Your task to perform on an android device: Open Google Maps Image 0: 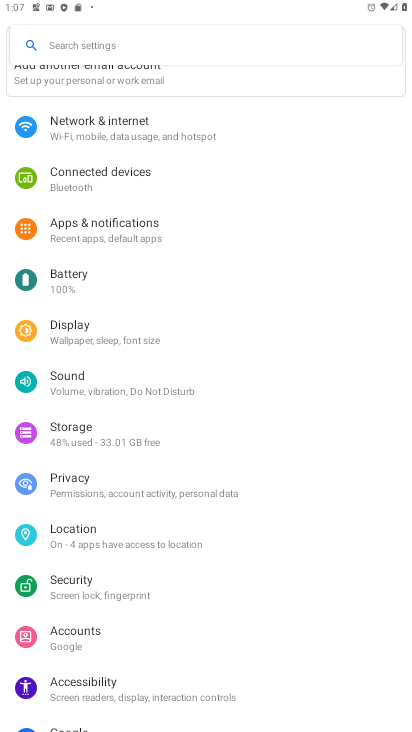
Step 0: press home button
Your task to perform on an android device: Open Google Maps Image 1: 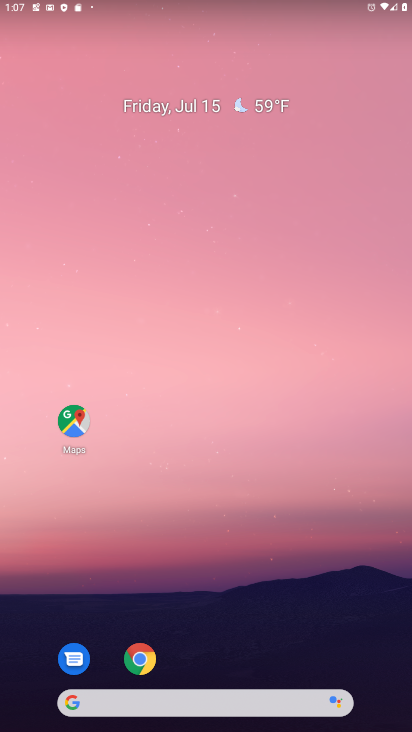
Step 1: drag from (259, 630) to (247, 230)
Your task to perform on an android device: Open Google Maps Image 2: 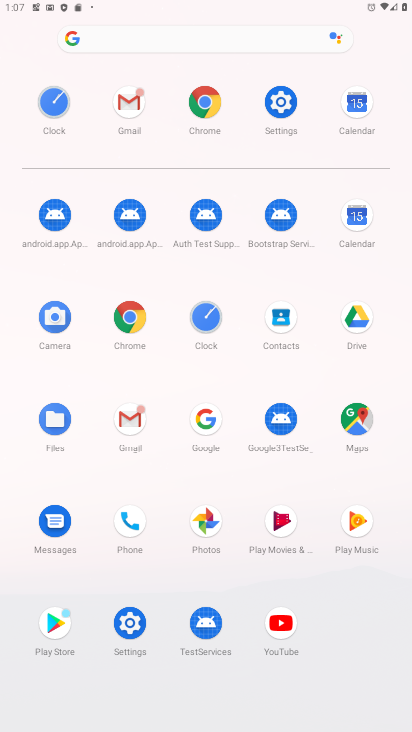
Step 2: click (356, 420)
Your task to perform on an android device: Open Google Maps Image 3: 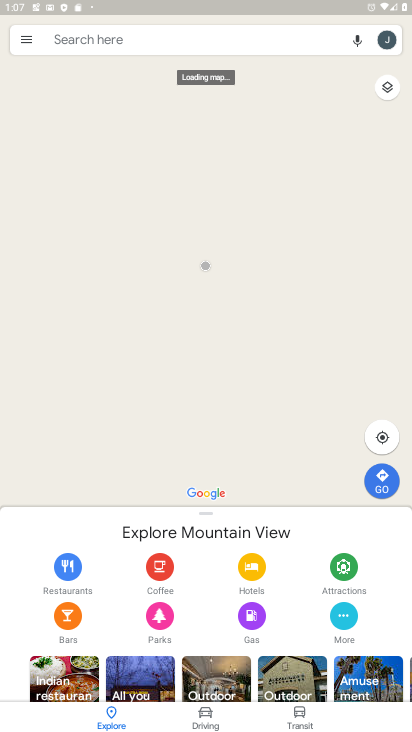
Step 3: task complete